Your task to perform on an android device: Open Yahoo.com Image 0: 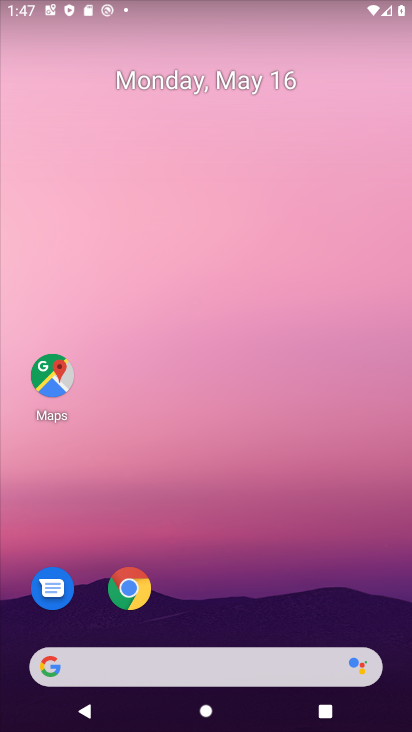
Step 0: click (131, 587)
Your task to perform on an android device: Open Yahoo.com Image 1: 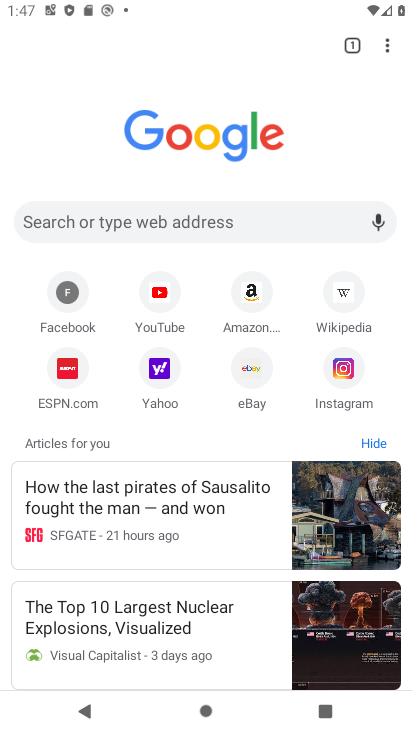
Step 1: click (185, 222)
Your task to perform on an android device: Open Yahoo.com Image 2: 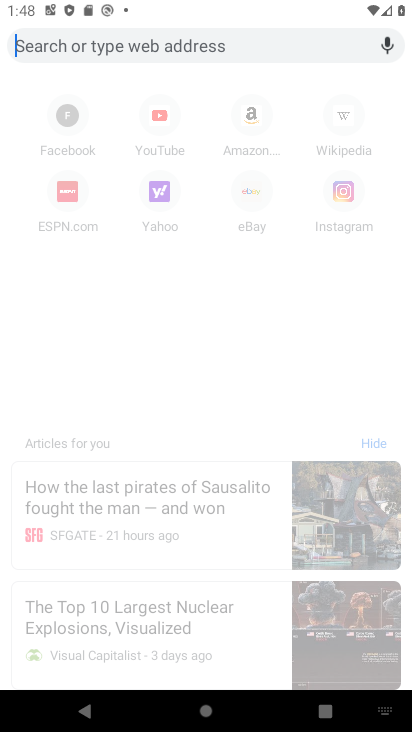
Step 2: type "Yahoo.com"
Your task to perform on an android device: Open Yahoo.com Image 3: 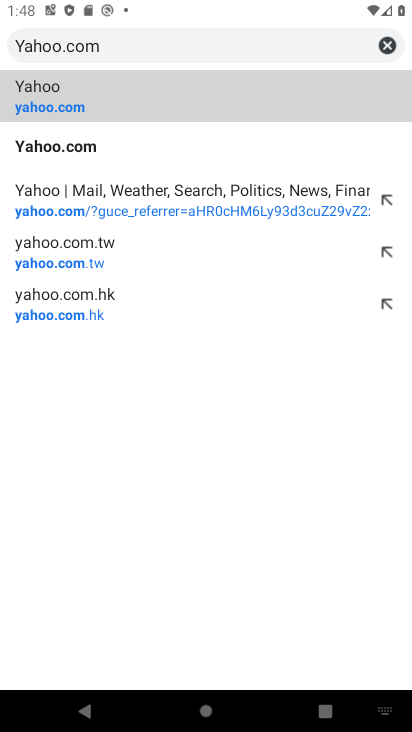
Step 3: click (88, 147)
Your task to perform on an android device: Open Yahoo.com Image 4: 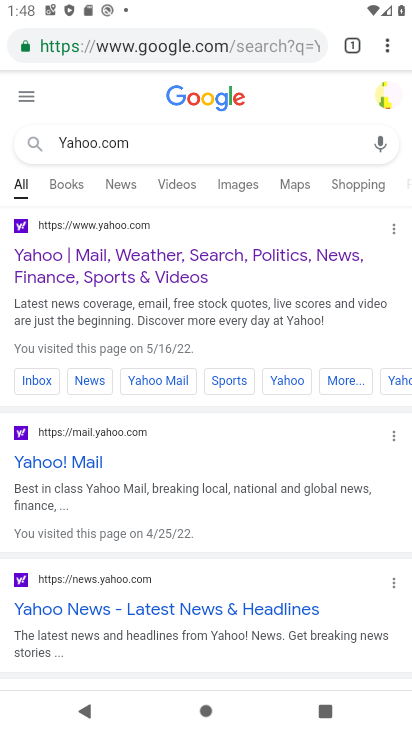
Step 4: click (86, 258)
Your task to perform on an android device: Open Yahoo.com Image 5: 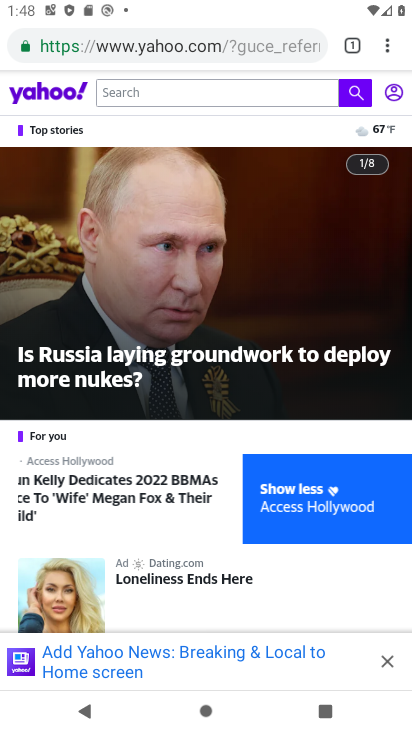
Step 5: task complete